Your task to perform on an android device: check battery use Image 0: 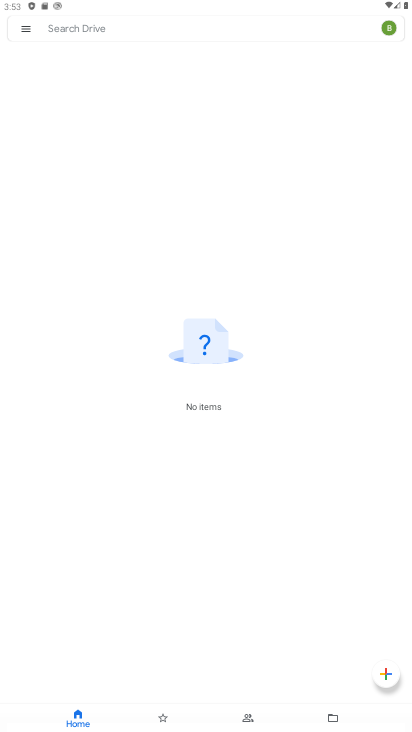
Step 0: press home button
Your task to perform on an android device: check battery use Image 1: 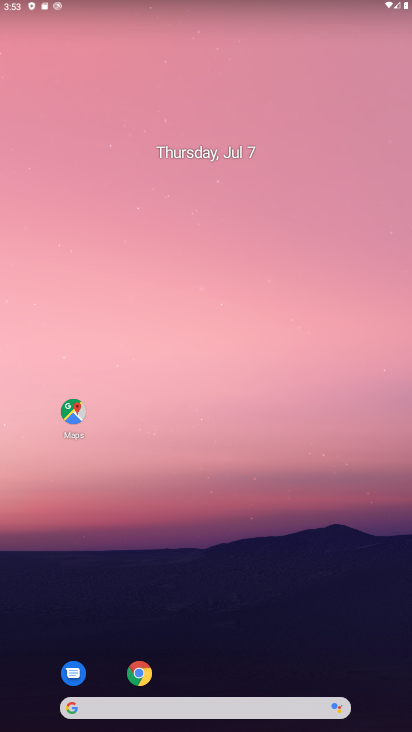
Step 1: drag from (201, 646) to (230, 58)
Your task to perform on an android device: check battery use Image 2: 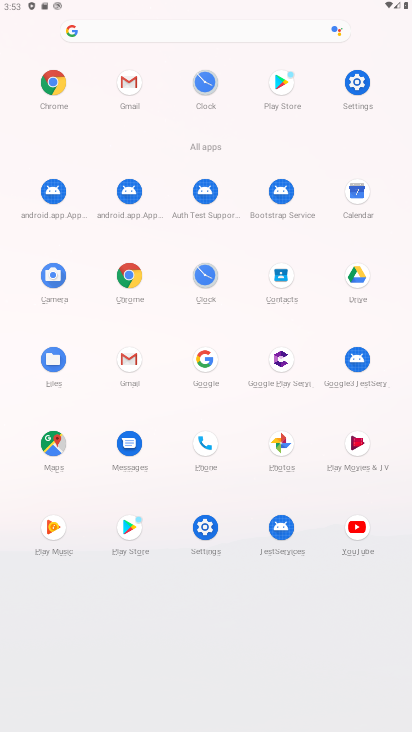
Step 2: click (354, 84)
Your task to perform on an android device: check battery use Image 3: 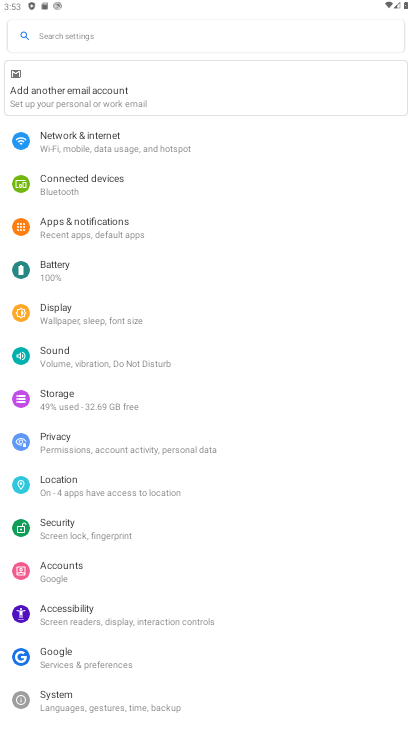
Step 3: click (79, 270)
Your task to perform on an android device: check battery use Image 4: 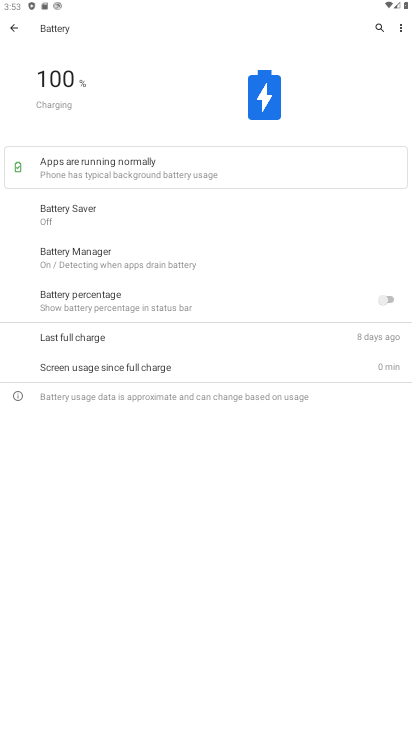
Step 4: click (402, 31)
Your task to perform on an android device: check battery use Image 5: 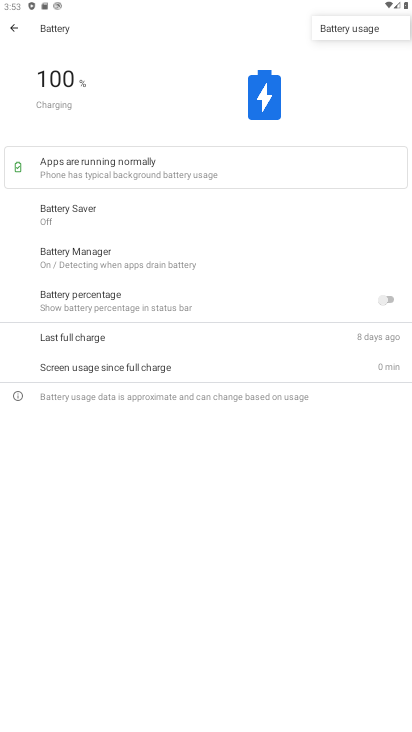
Step 5: click (350, 22)
Your task to perform on an android device: check battery use Image 6: 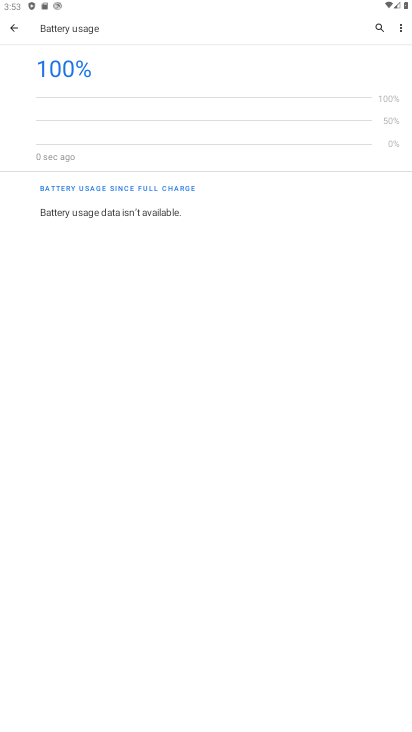
Step 6: task complete